Your task to perform on an android device: Go to location settings Image 0: 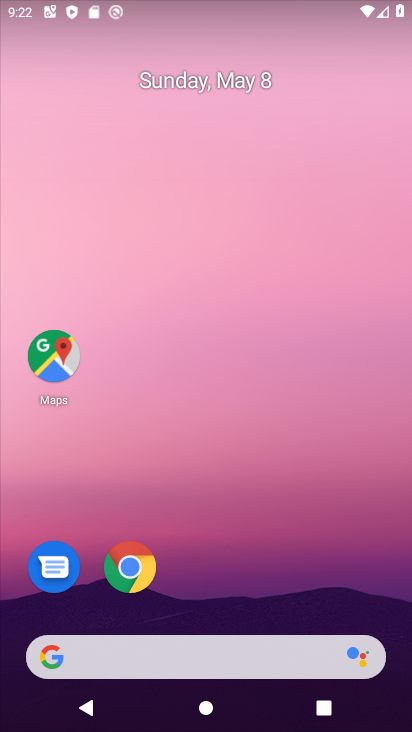
Step 0: drag from (286, 667) to (214, 202)
Your task to perform on an android device: Go to location settings Image 1: 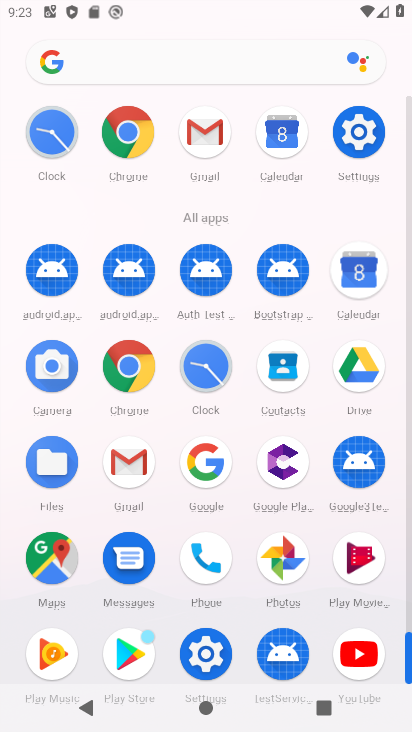
Step 1: click (357, 145)
Your task to perform on an android device: Go to location settings Image 2: 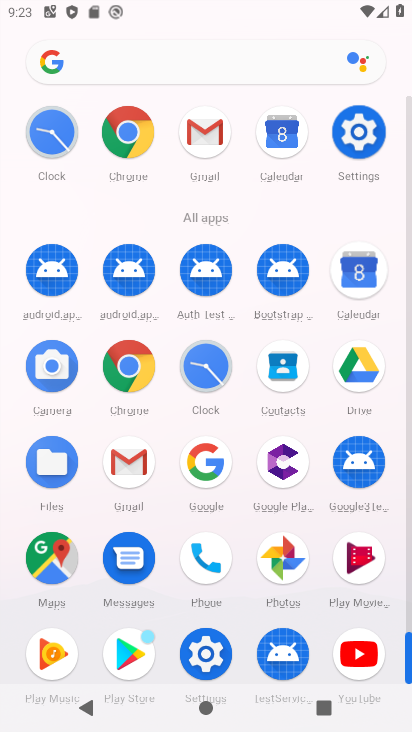
Step 2: click (356, 144)
Your task to perform on an android device: Go to location settings Image 3: 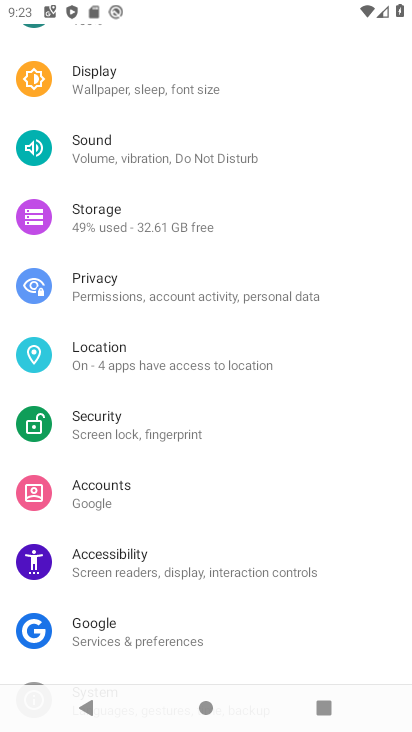
Step 3: click (126, 358)
Your task to perform on an android device: Go to location settings Image 4: 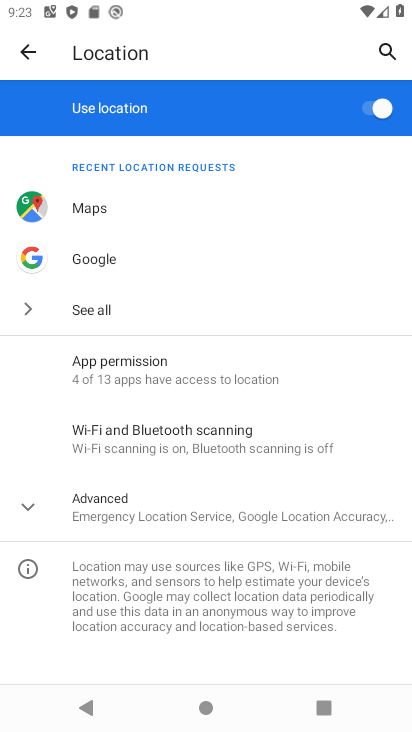
Step 4: task complete